Your task to perform on an android device: turn off javascript in the chrome app Image 0: 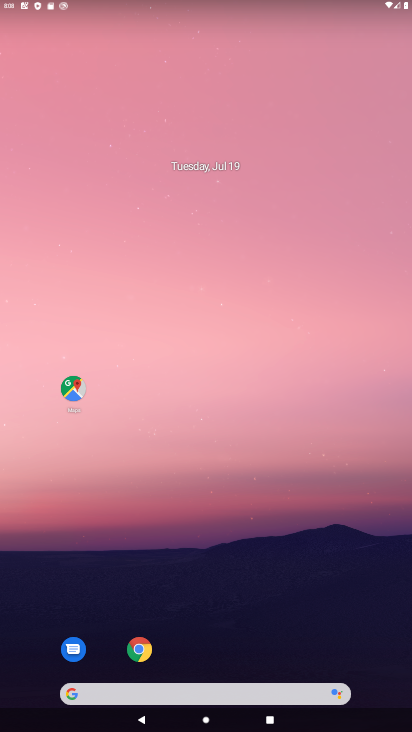
Step 0: press home button
Your task to perform on an android device: turn off javascript in the chrome app Image 1: 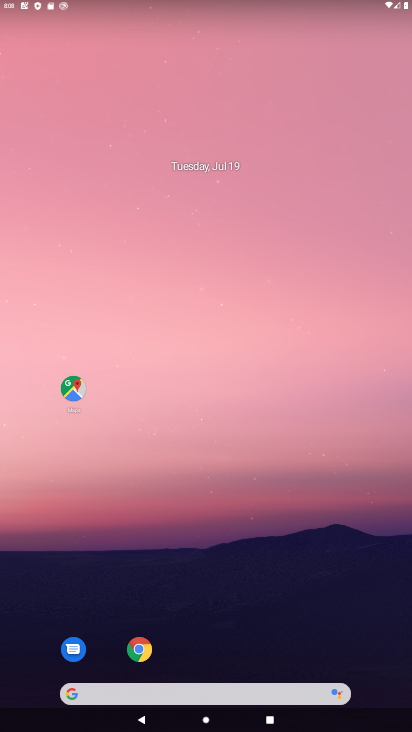
Step 1: click (135, 642)
Your task to perform on an android device: turn off javascript in the chrome app Image 2: 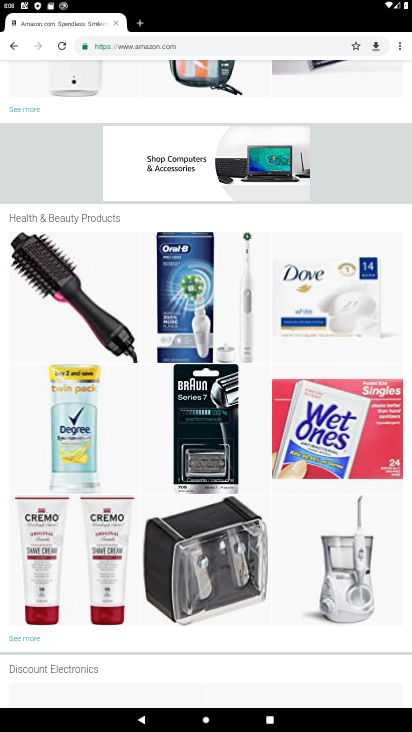
Step 2: click (402, 45)
Your task to perform on an android device: turn off javascript in the chrome app Image 3: 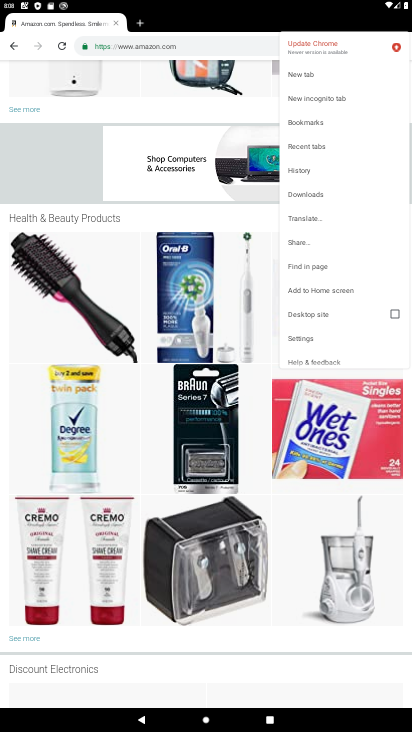
Step 3: click (314, 334)
Your task to perform on an android device: turn off javascript in the chrome app Image 4: 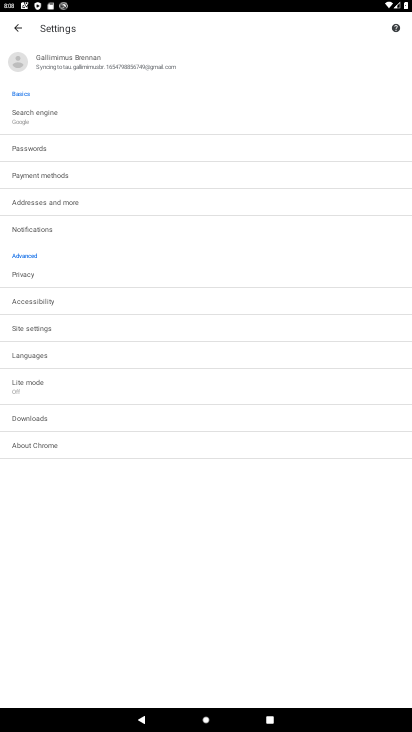
Step 4: click (60, 323)
Your task to perform on an android device: turn off javascript in the chrome app Image 5: 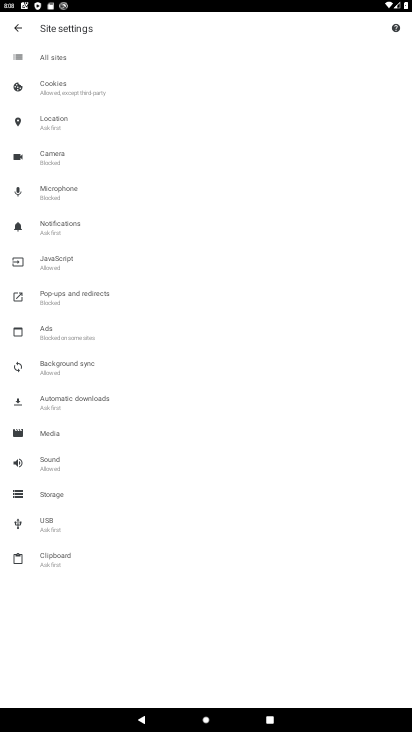
Step 5: click (75, 265)
Your task to perform on an android device: turn off javascript in the chrome app Image 6: 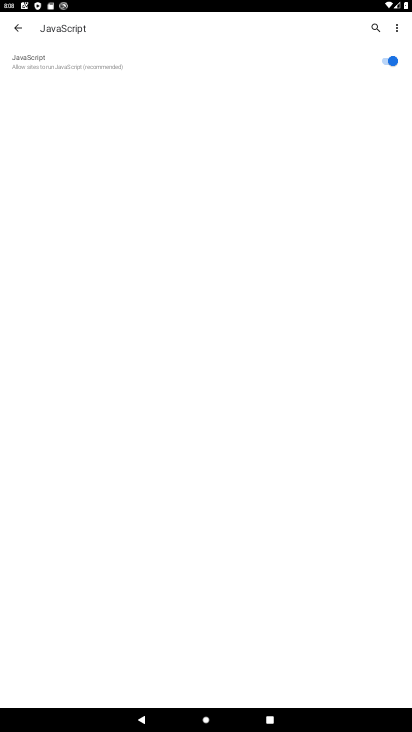
Step 6: click (383, 53)
Your task to perform on an android device: turn off javascript in the chrome app Image 7: 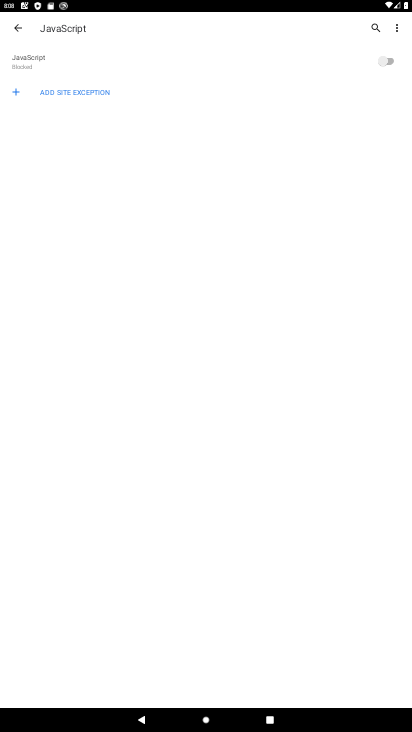
Step 7: task complete